Your task to perform on an android device: Open Amazon Image 0: 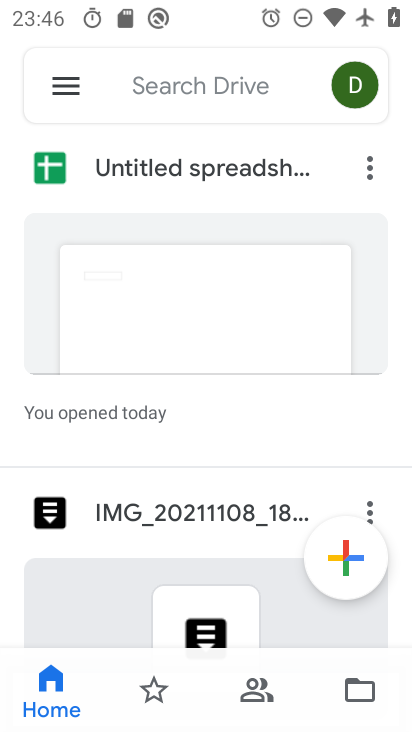
Step 0: press home button
Your task to perform on an android device: Open Amazon Image 1: 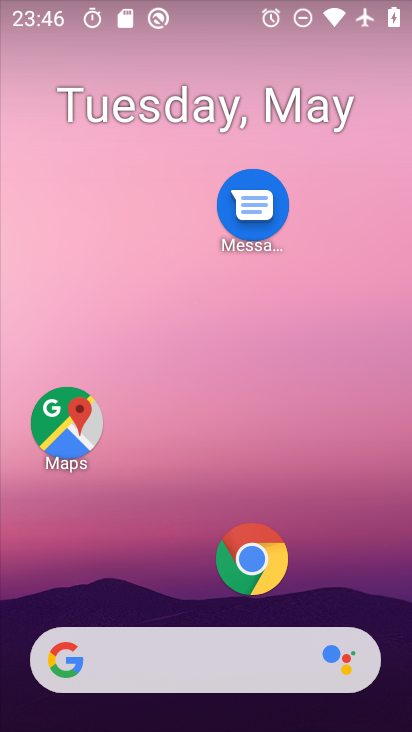
Step 1: click (220, 569)
Your task to perform on an android device: Open Amazon Image 2: 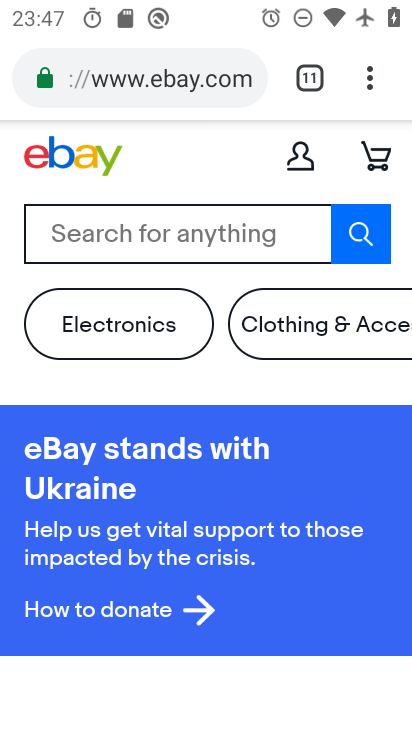
Step 2: click (301, 77)
Your task to perform on an android device: Open Amazon Image 3: 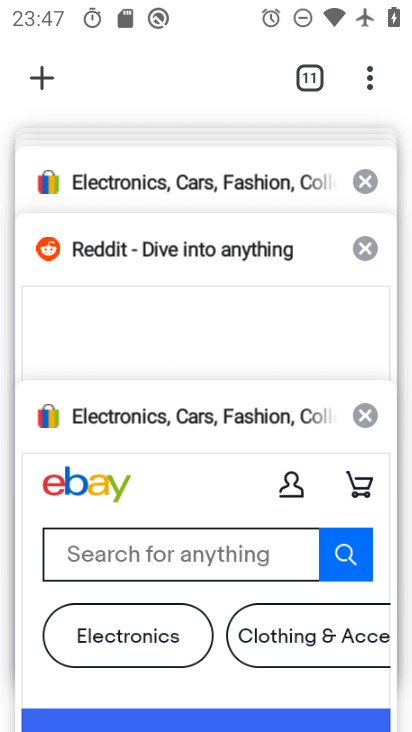
Step 3: click (47, 73)
Your task to perform on an android device: Open Amazon Image 4: 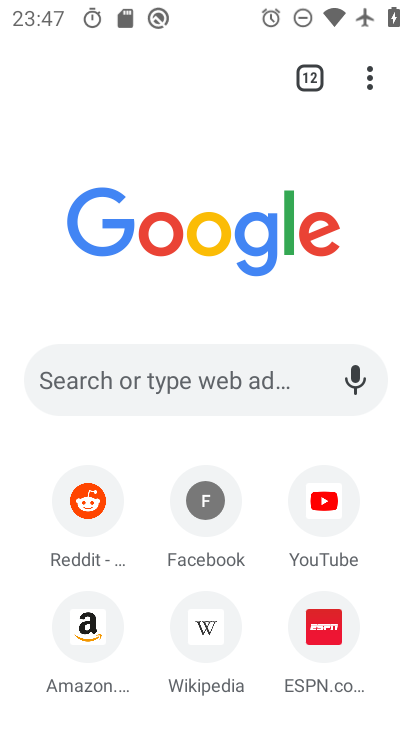
Step 4: click (97, 653)
Your task to perform on an android device: Open Amazon Image 5: 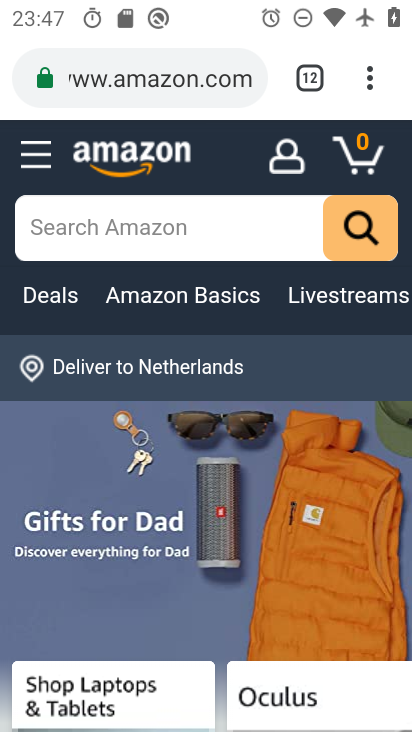
Step 5: task complete